Your task to perform on an android device: Open ESPN.com Image 0: 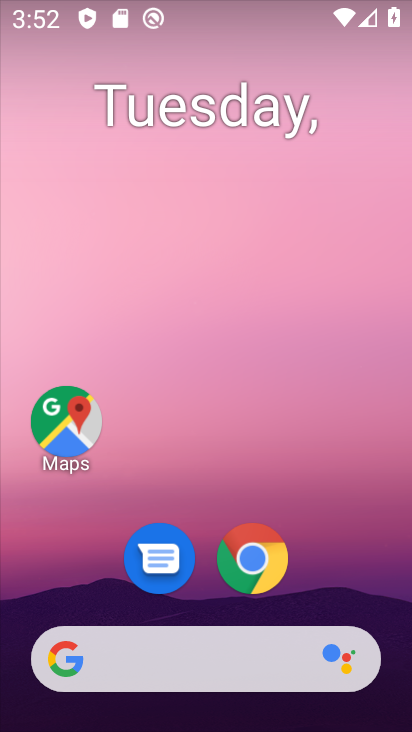
Step 0: click (254, 548)
Your task to perform on an android device: Open ESPN.com Image 1: 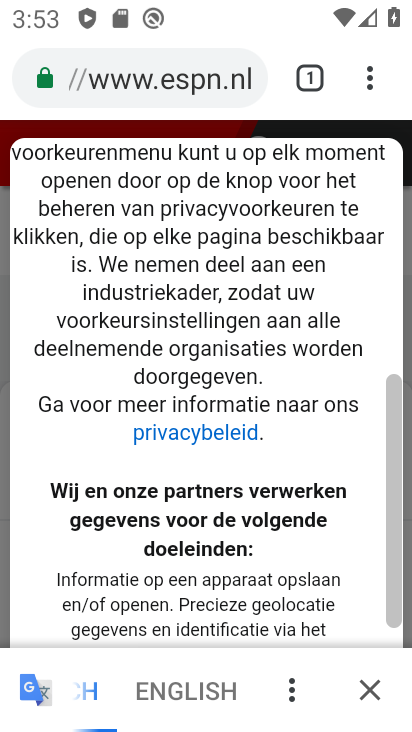
Step 1: task complete